Your task to perform on an android device: install app "Walmart Shopping & Grocery" Image 0: 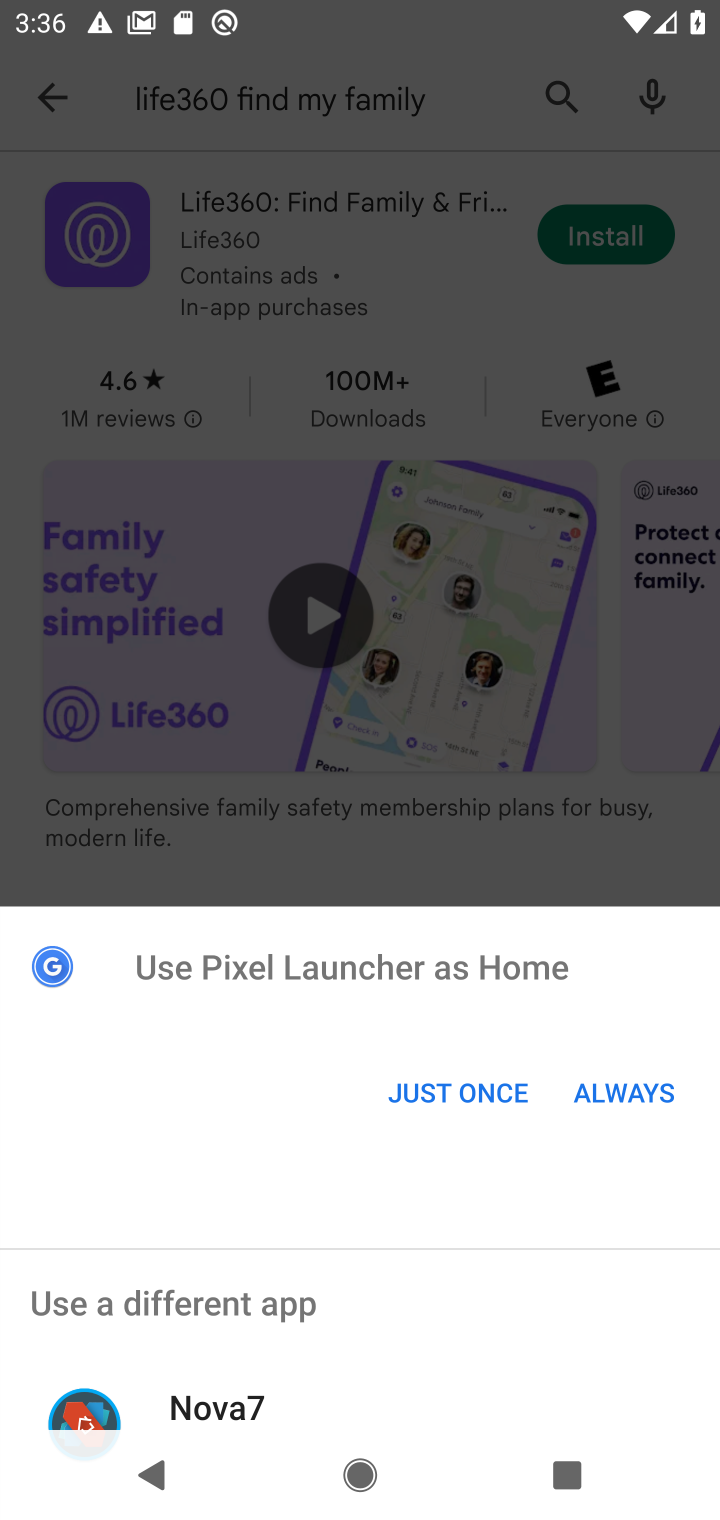
Step 0: click (476, 1073)
Your task to perform on an android device: install app "Walmart Shopping & Grocery" Image 1: 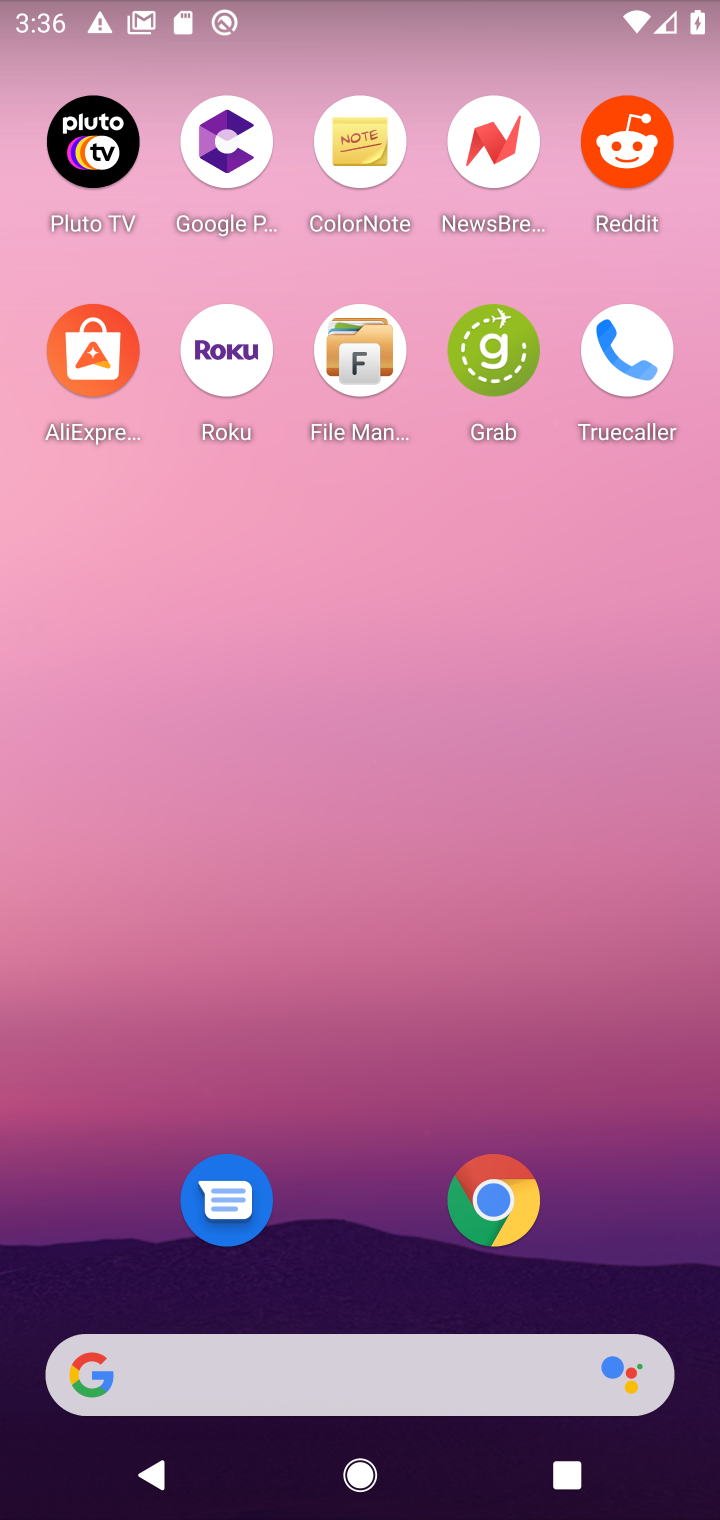
Step 1: click (400, 104)
Your task to perform on an android device: install app "Walmart Shopping & Grocery" Image 2: 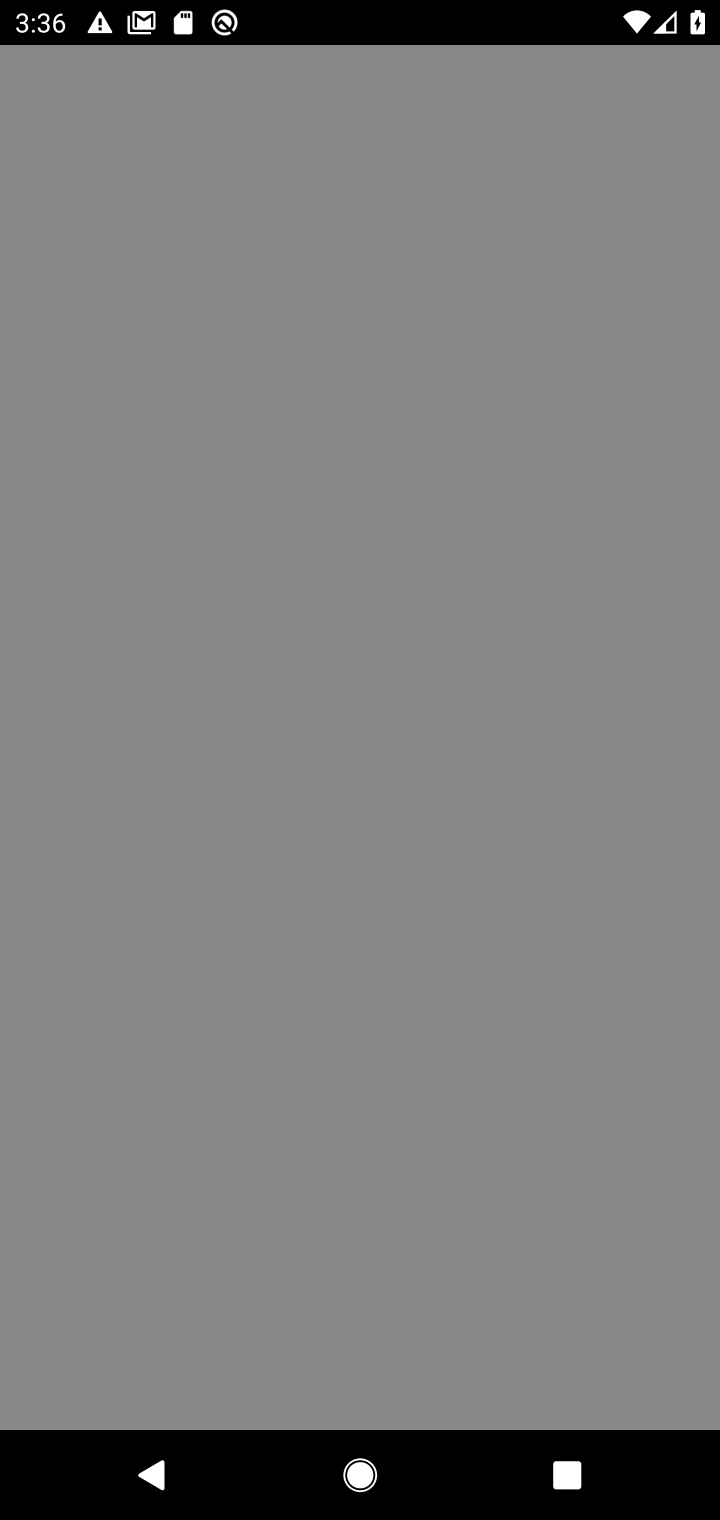
Step 2: drag from (329, 19) to (405, 82)
Your task to perform on an android device: install app "Walmart Shopping & Grocery" Image 3: 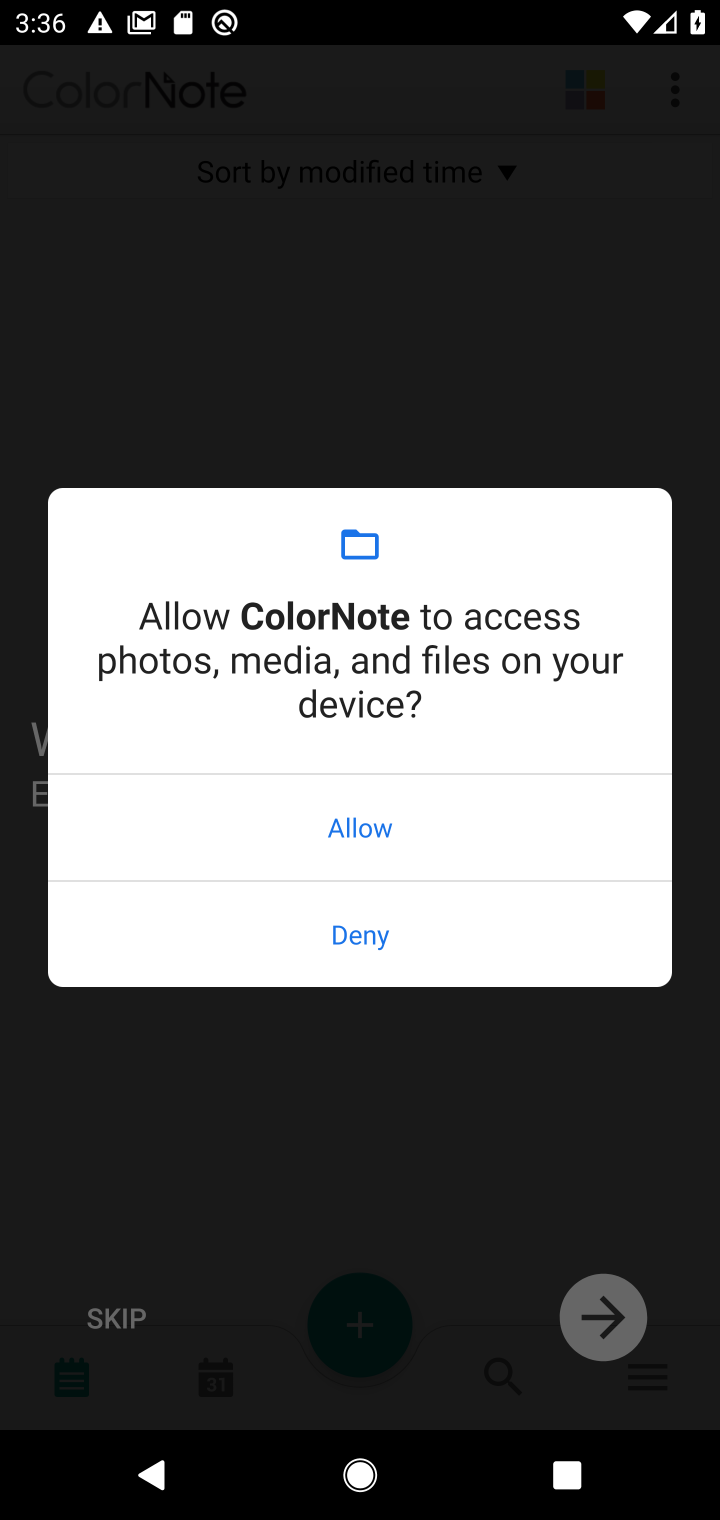
Step 3: press home button
Your task to perform on an android device: install app "Walmart Shopping & Grocery" Image 4: 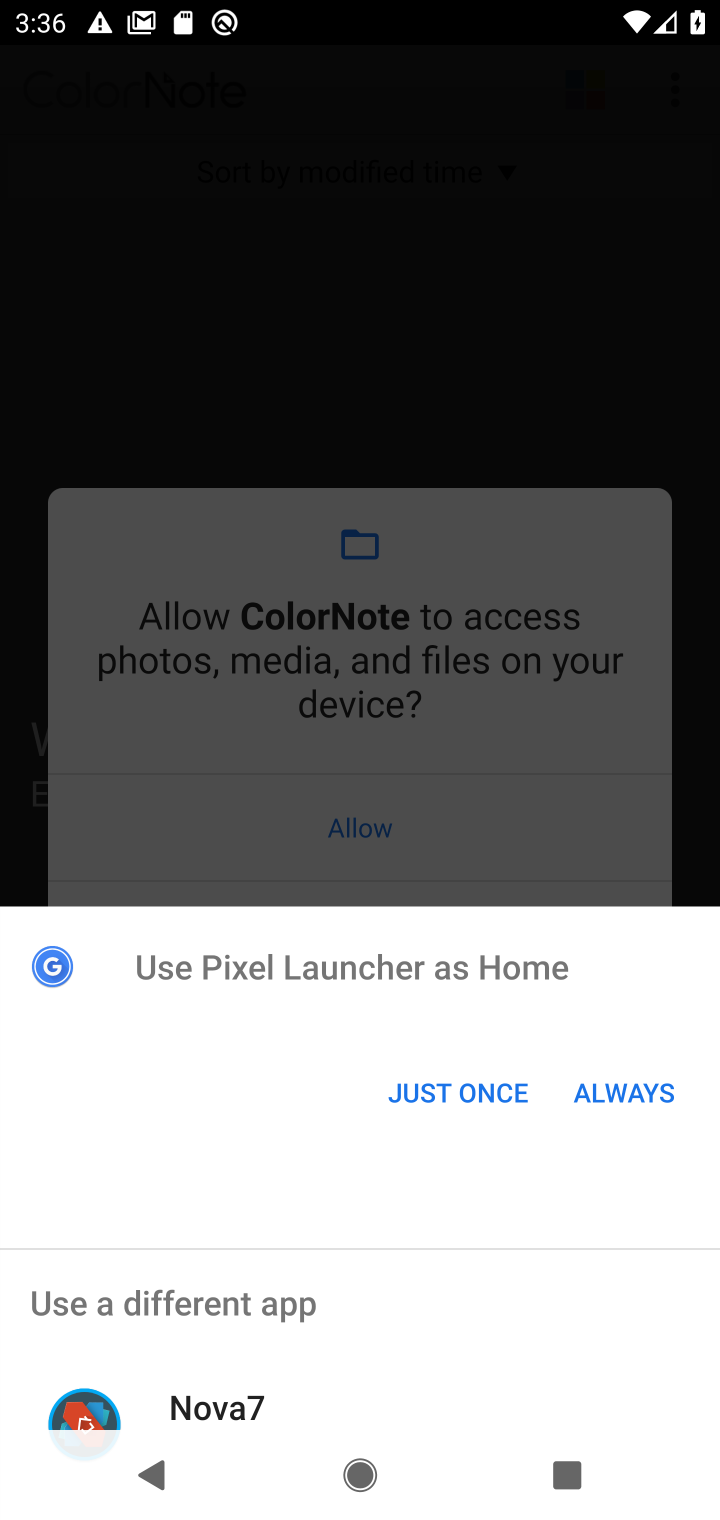
Step 4: click (441, 1089)
Your task to perform on an android device: install app "Walmart Shopping & Grocery" Image 5: 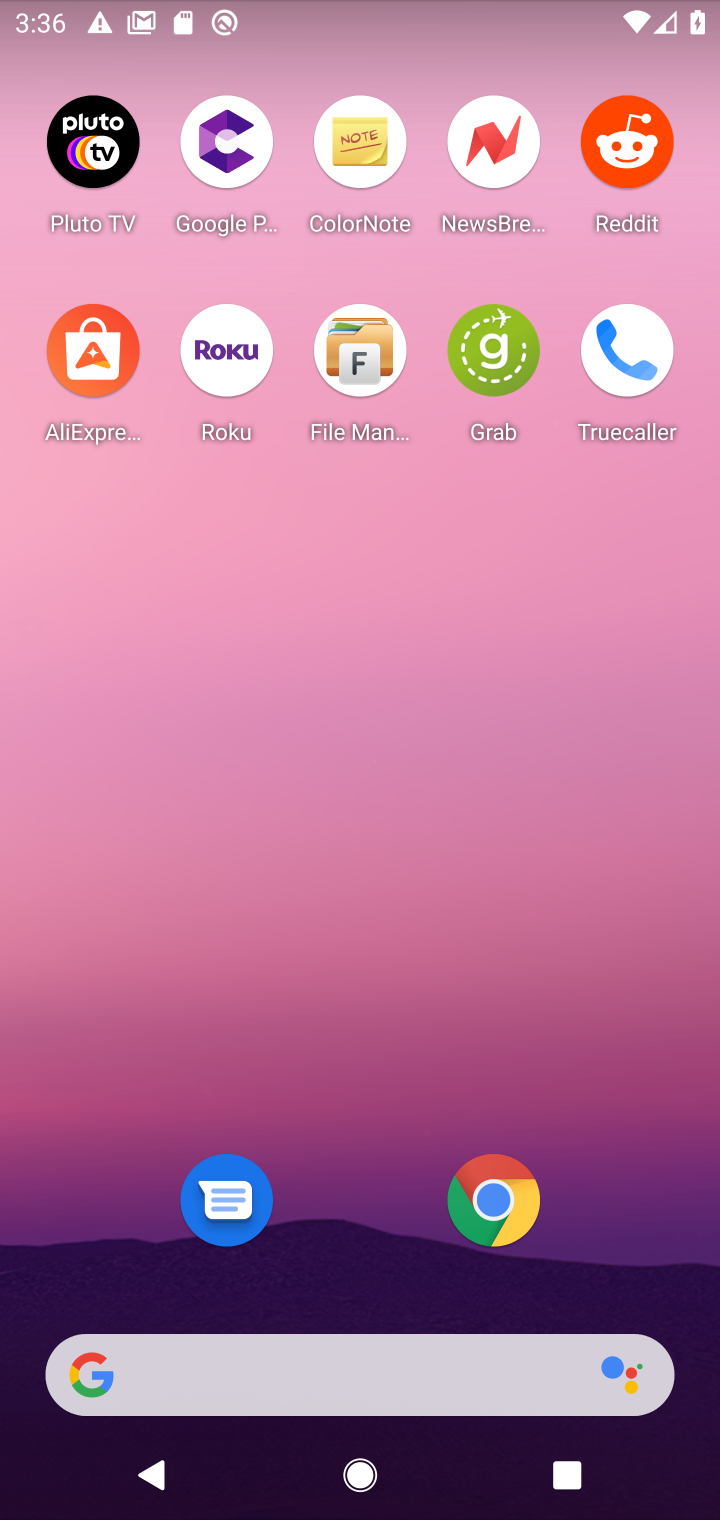
Step 5: click (375, 48)
Your task to perform on an android device: install app "Walmart Shopping & Grocery" Image 6: 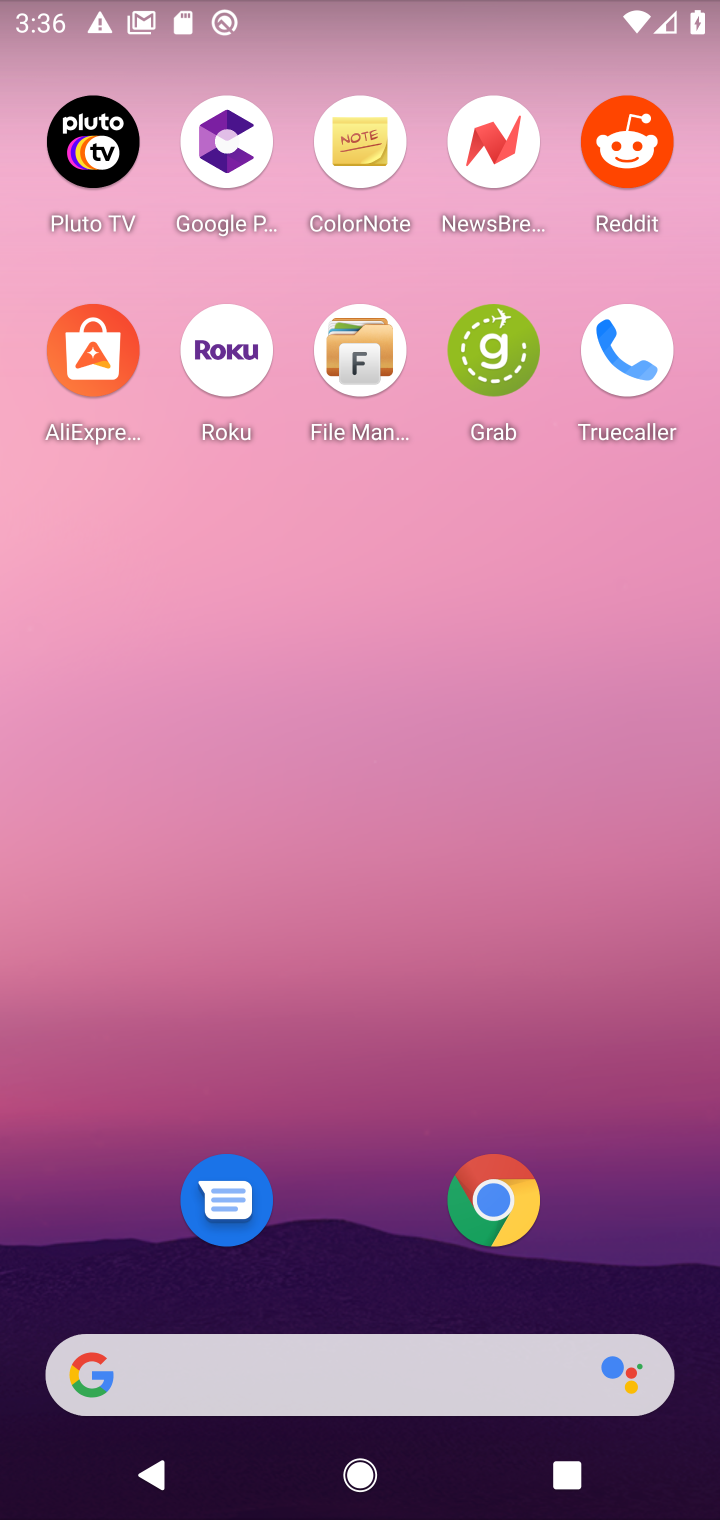
Step 6: drag from (350, 1222) to (331, 0)
Your task to perform on an android device: install app "Walmart Shopping & Grocery" Image 7: 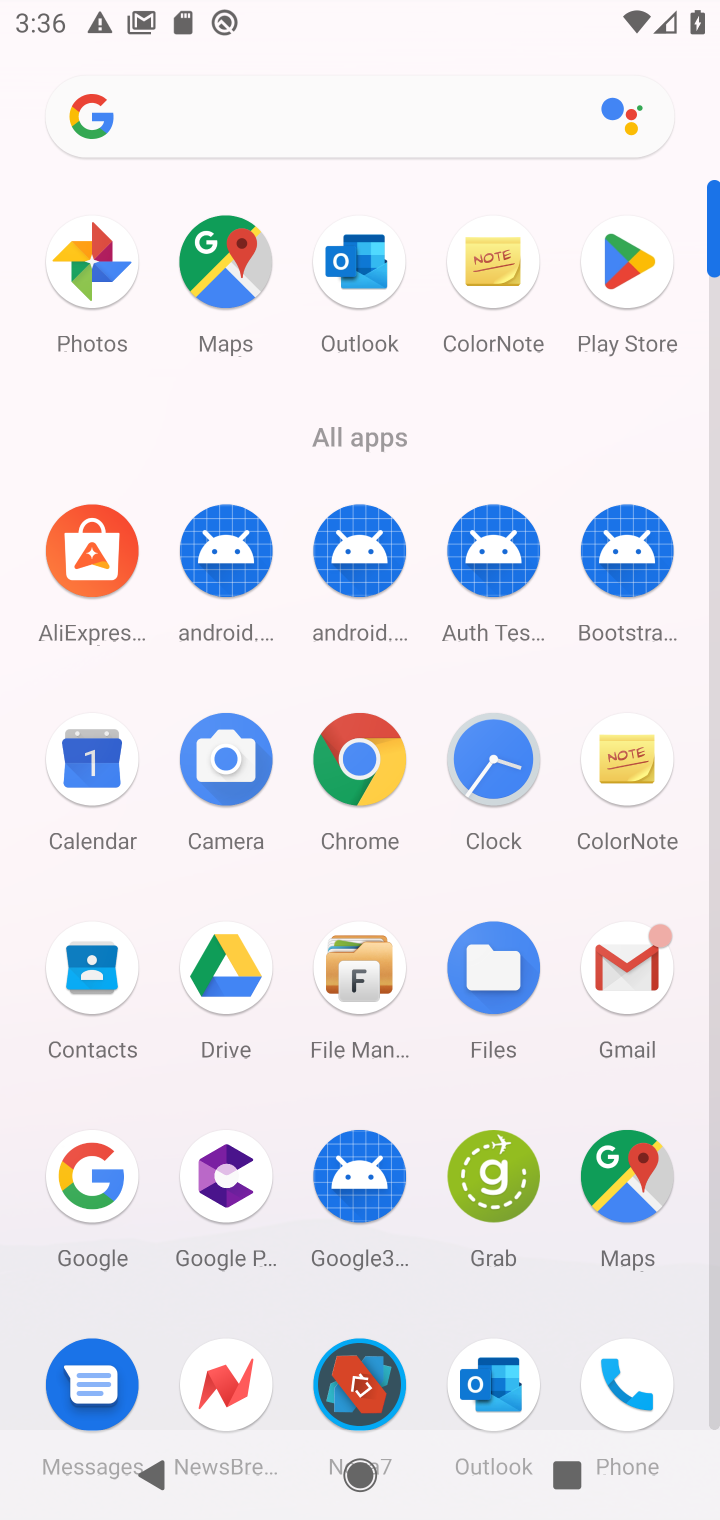
Step 7: click (638, 290)
Your task to perform on an android device: install app "Walmart Shopping & Grocery" Image 8: 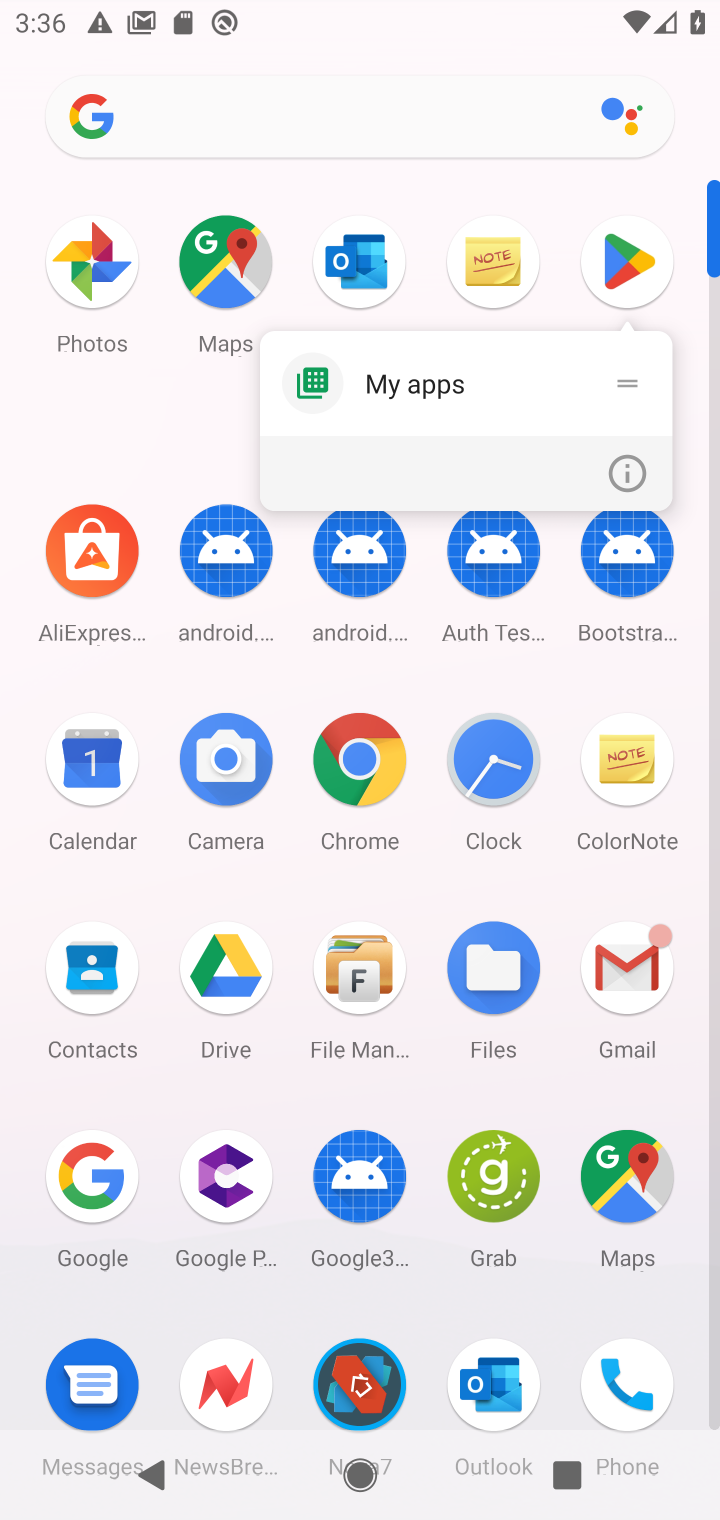
Step 8: click (649, 277)
Your task to perform on an android device: install app "Walmart Shopping & Grocery" Image 9: 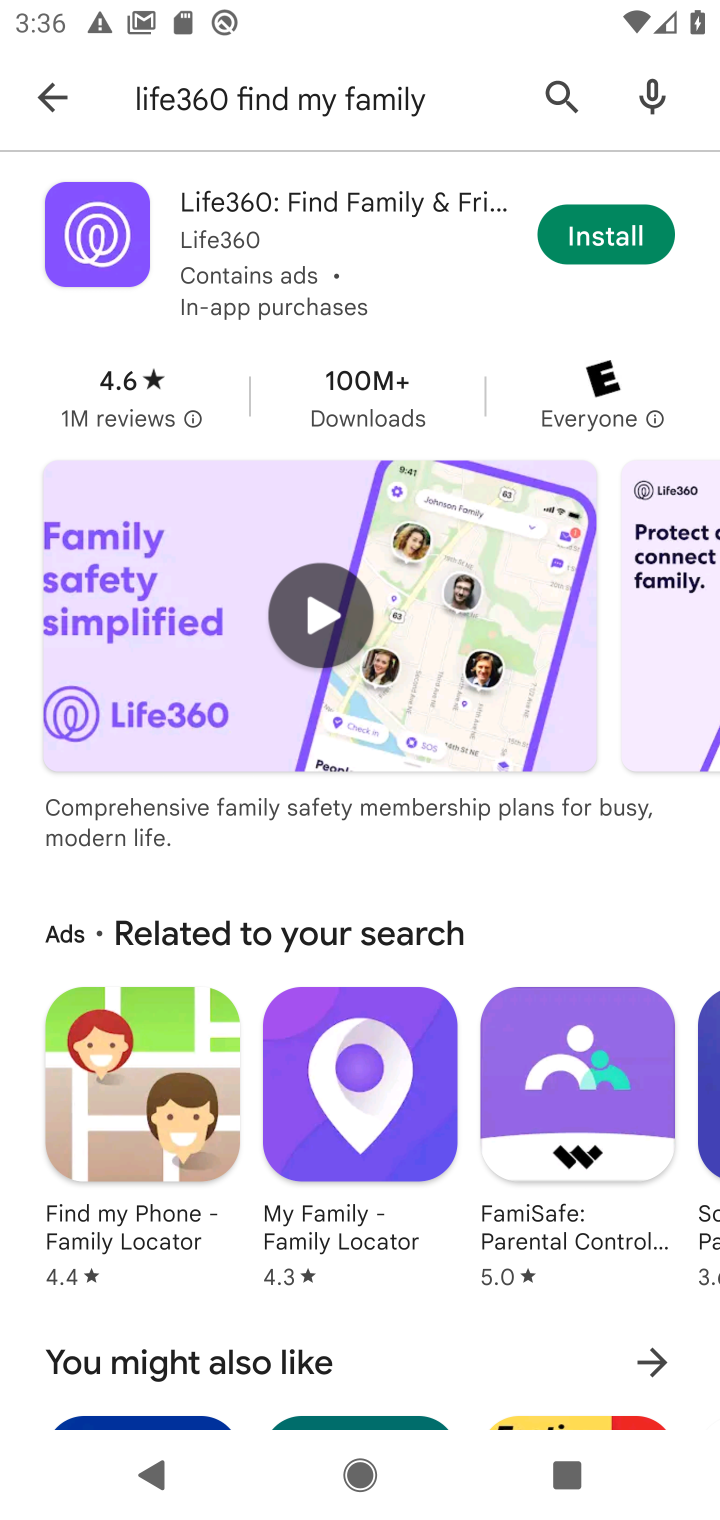
Step 9: click (224, 103)
Your task to perform on an android device: install app "Walmart Shopping & Grocery" Image 10: 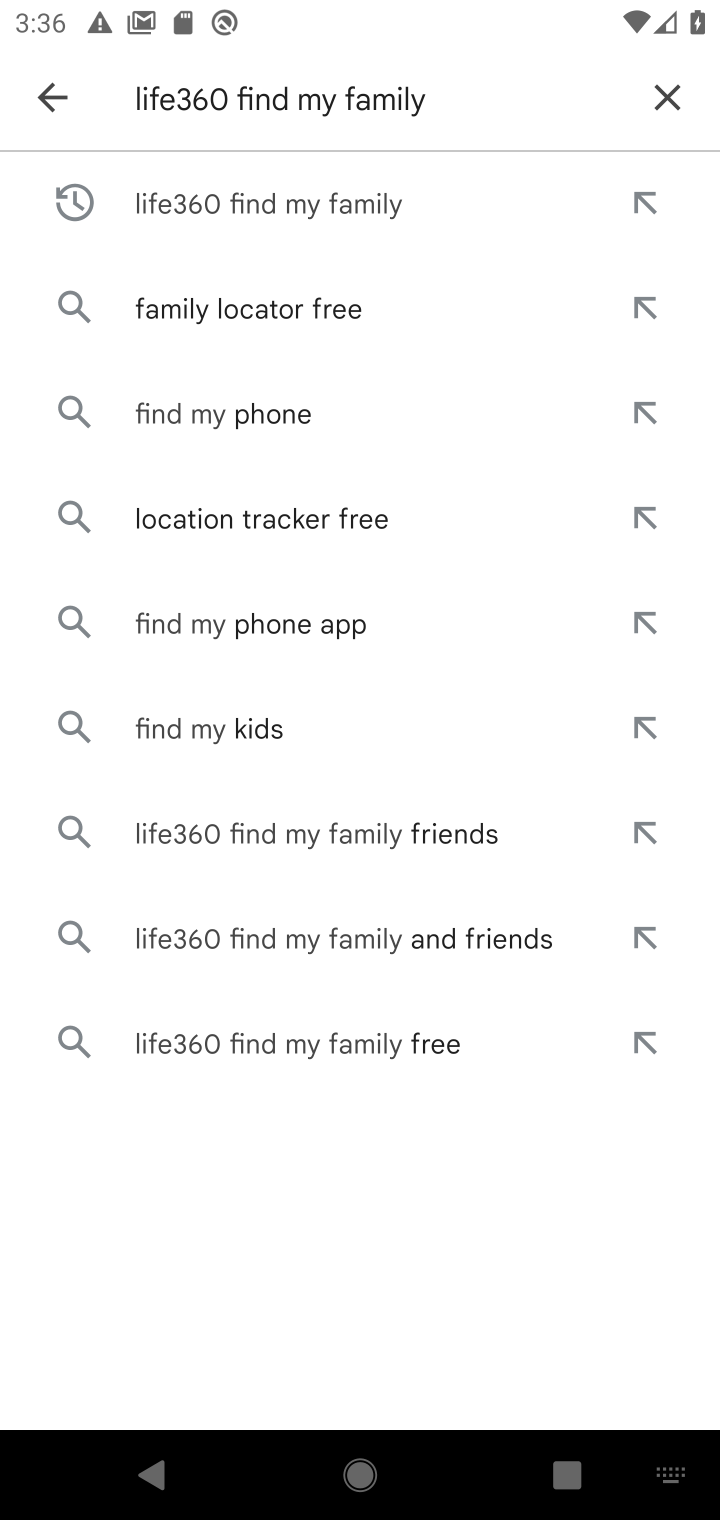
Step 10: click (667, 80)
Your task to perform on an android device: install app "Walmart Shopping & Grocery" Image 11: 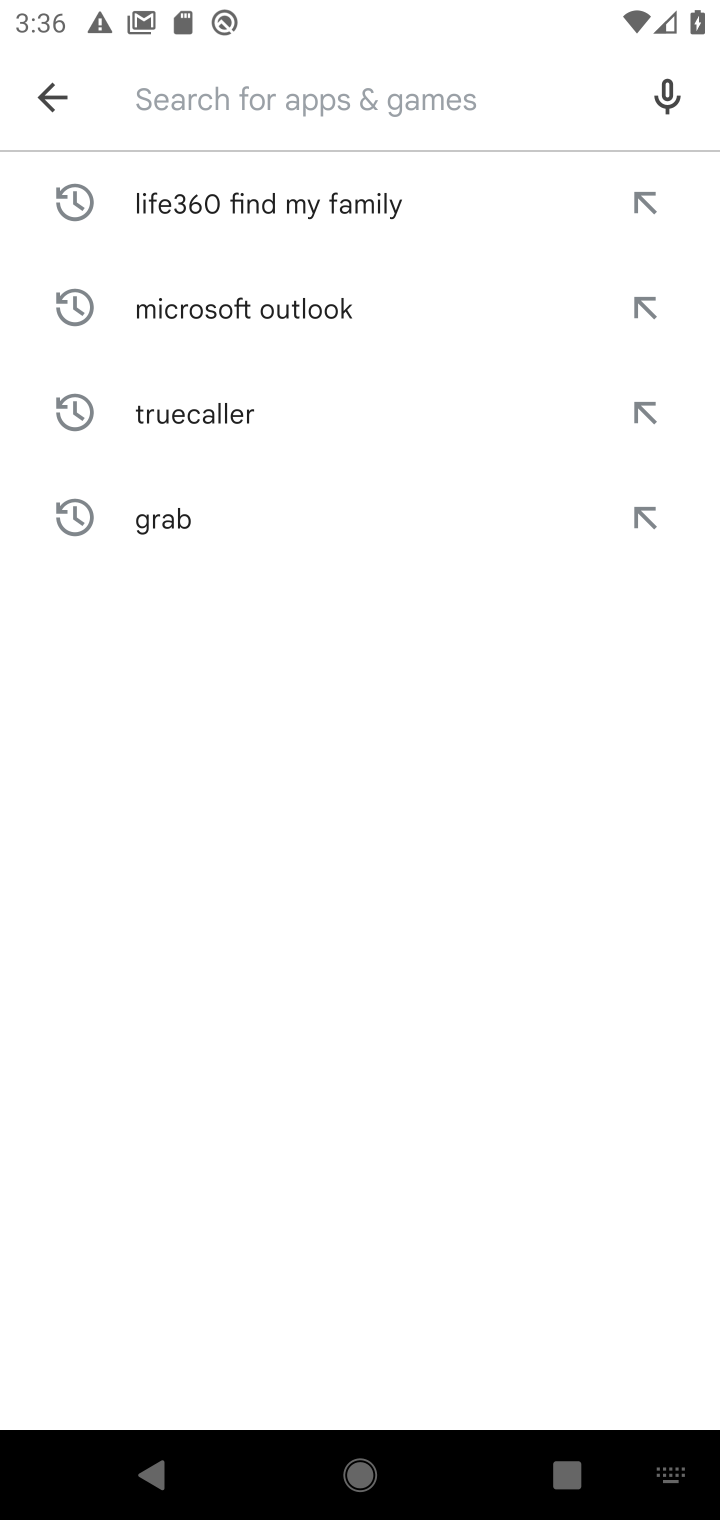
Step 11: type "walmart shopping and groceries"
Your task to perform on an android device: install app "Walmart Shopping & Grocery" Image 12: 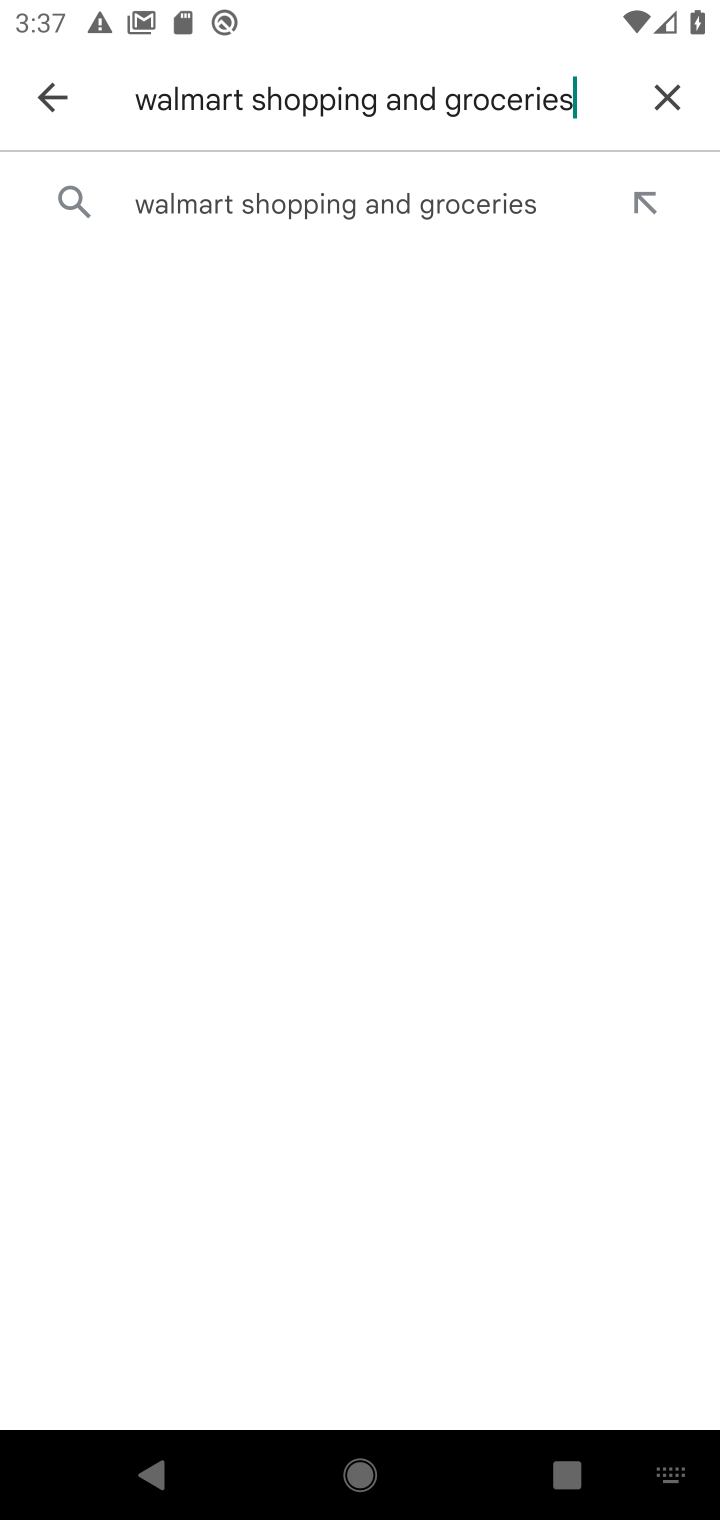
Step 12: click (345, 196)
Your task to perform on an android device: install app "Walmart Shopping & Grocery" Image 13: 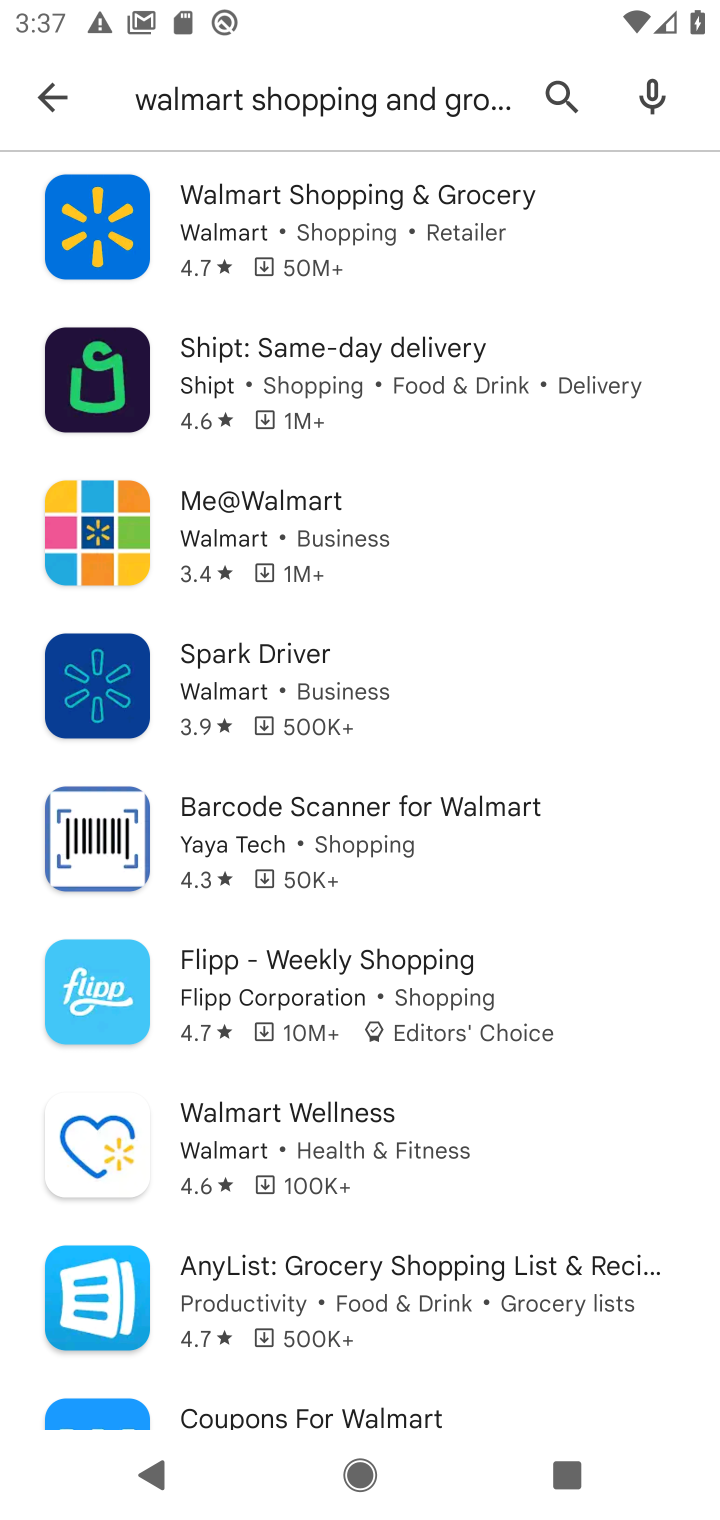
Step 13: click (359, 231)
Your task to perform on an android device: install app "Walmart Shopping & Grocery" Image 14: 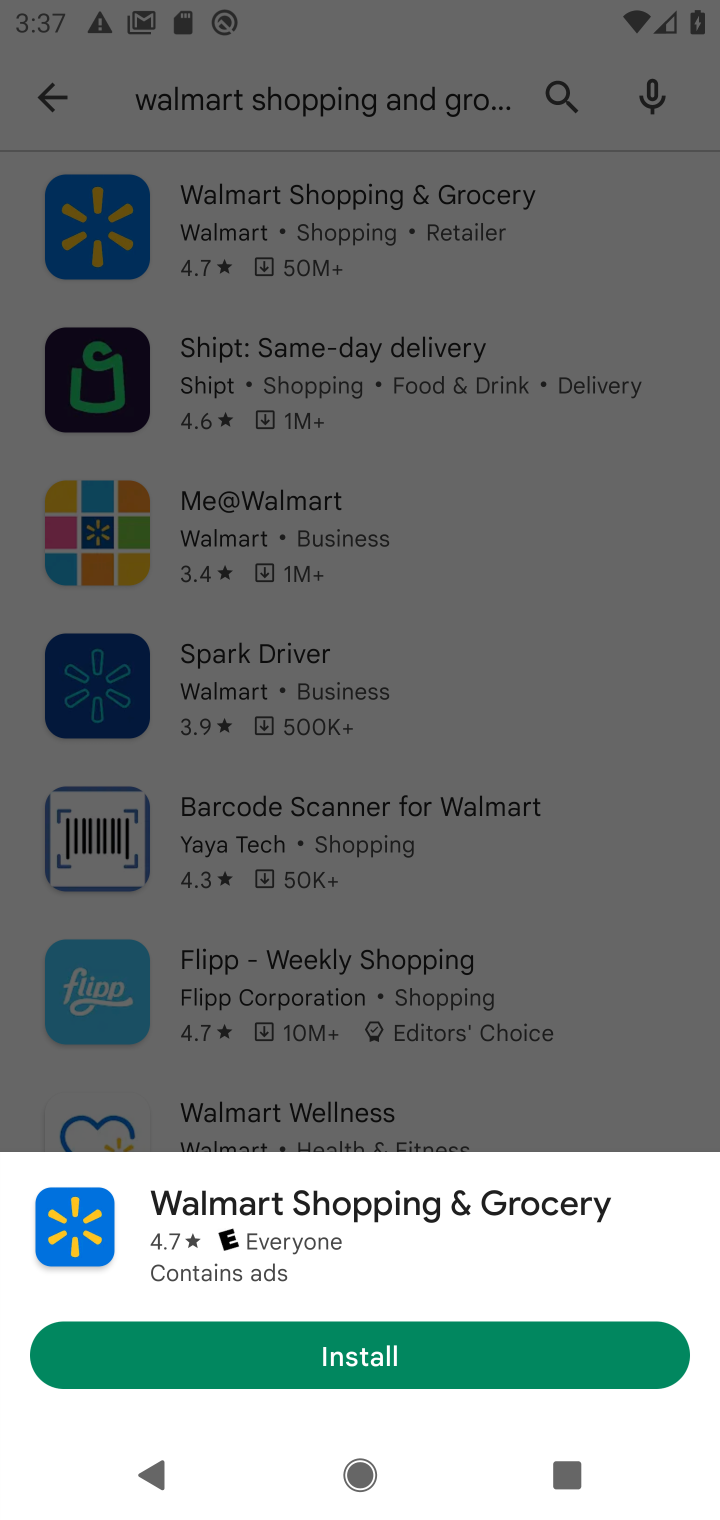
Step 14: click (183, 1352)
Your task to perform on an android device: install app "Walmart Shopping & Grocery" Image 15: 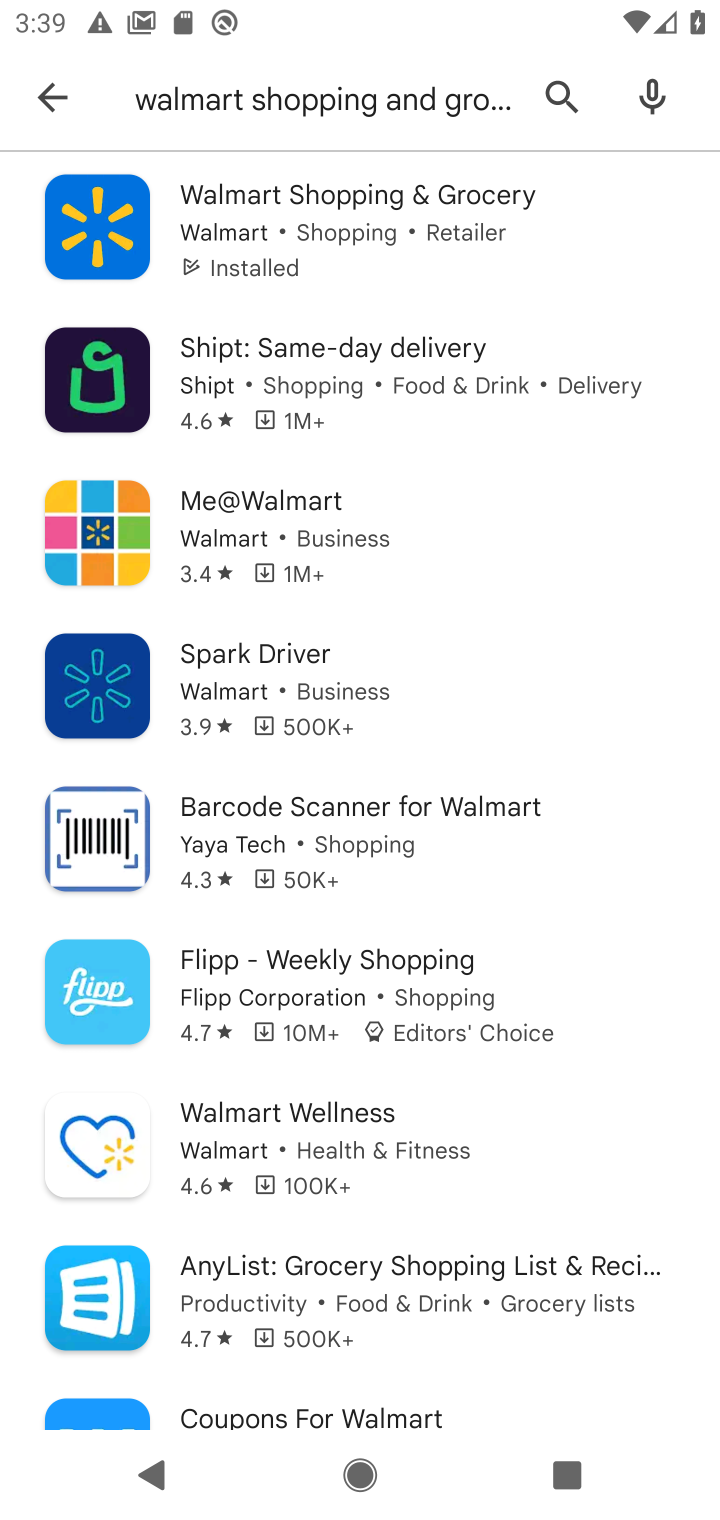
Step 15: task complete